Your task to perform on an android device: Go to Wikipedia Image 0: 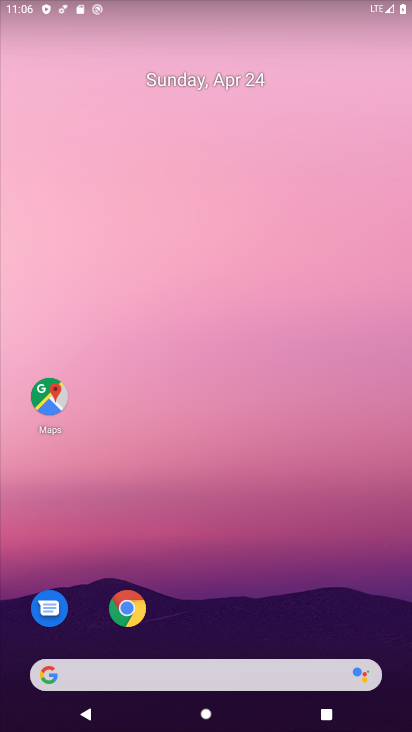
Step 0: click (135, 609)
Your task to perform on an android device: Go to Wikipedia Image 1: 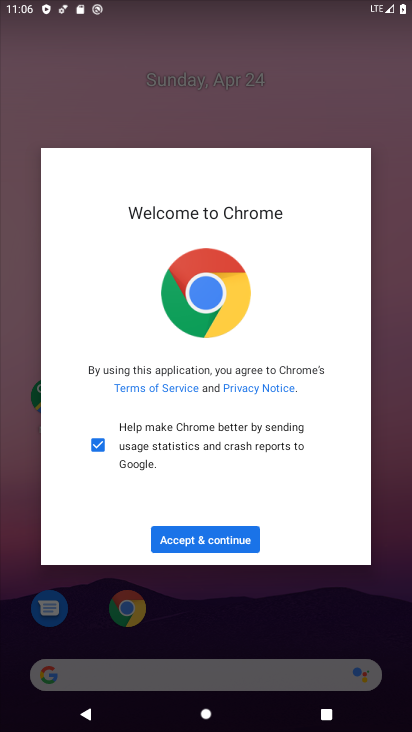
Step 1: click (196, 533)
Your task to perform on an android device: Go to Wikipedia Image 2: 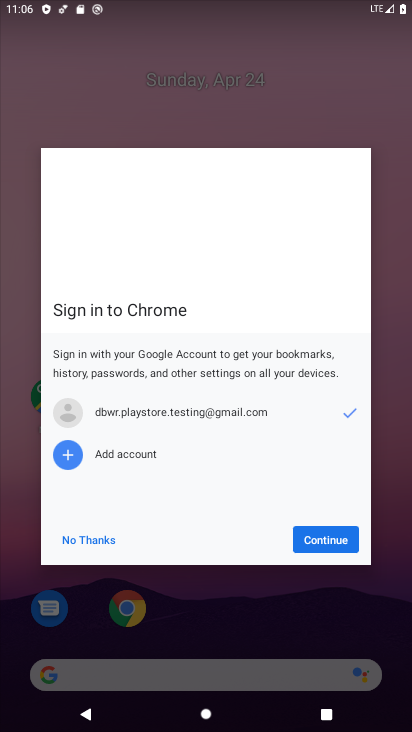
Step 2: click (350, 542)
Your task to perform on an android device: Go to Wikipedia Image 3: 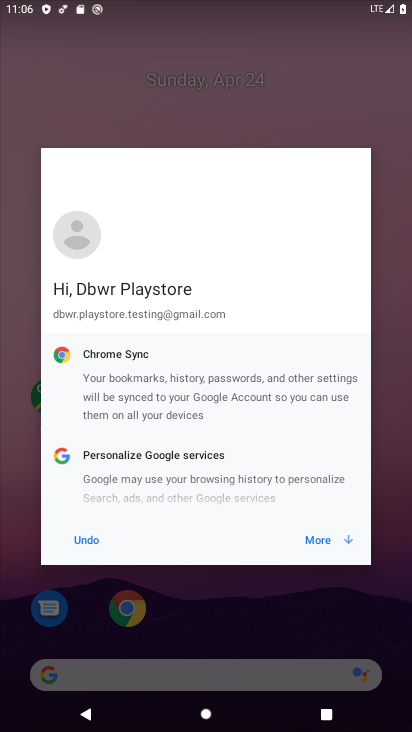
Step 3: click (330, 544)
Your task to perform on an android device: Go to Wikipedia Image 4: 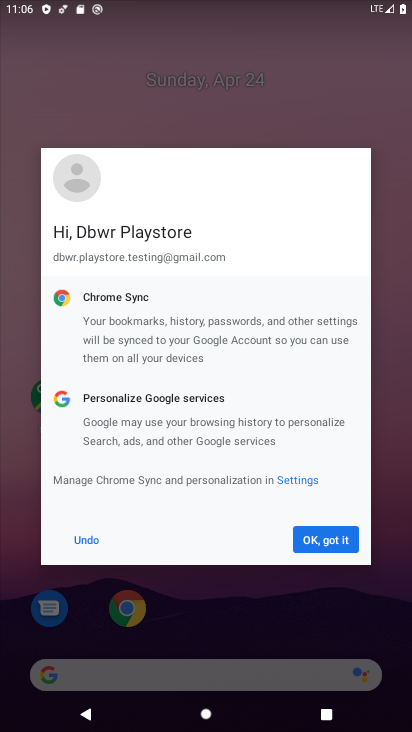
Step 4: click (330, 544)
Your task to perform on an android device: Go to Wikipedia Image 5: 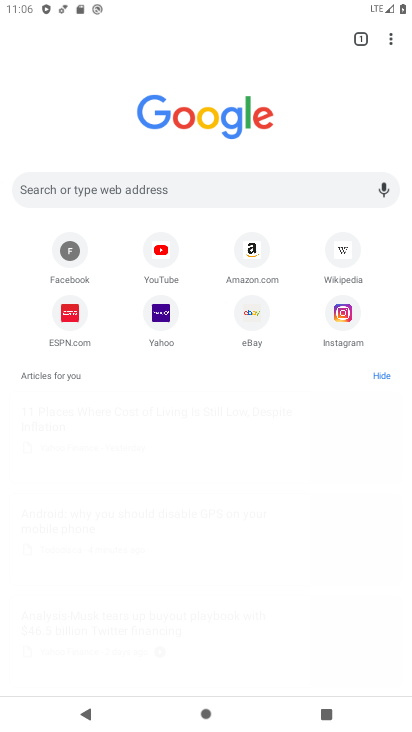
Step 5: click (168, 192)
Your task to perform on an android device: Go to Wikipedia Image 6: 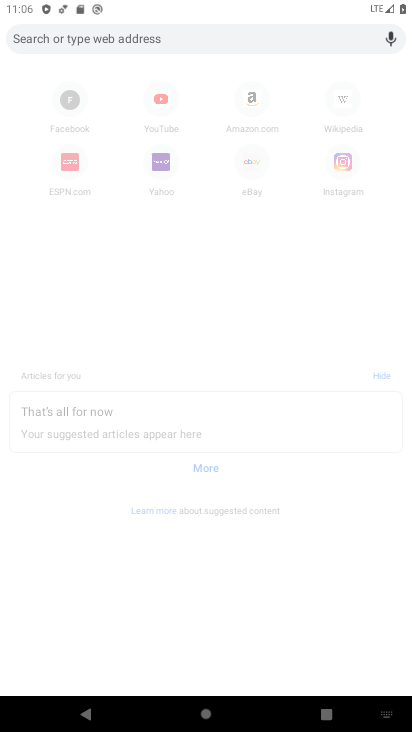
Step 6: type "wikipedia.org"
Your task to perform on an android device: Go to Wikipedia Image 7: 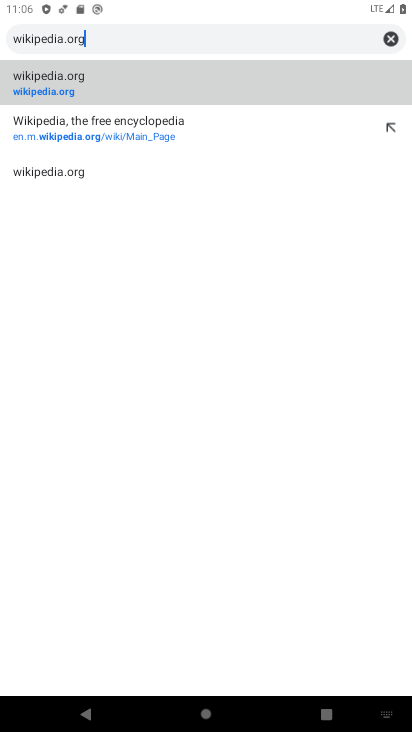
Step 7: click (87, 69)
Your task to perform on an android device: Go to Wikipedia Image 8: 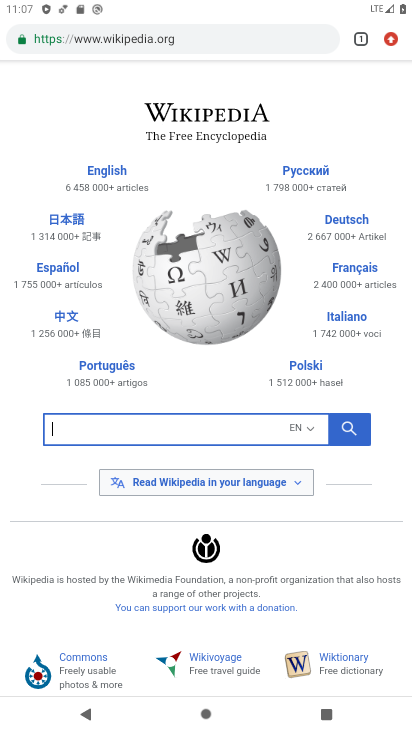
Step 8: task complete